Your task to perform on an android device: Open Google Chrome Image 0: 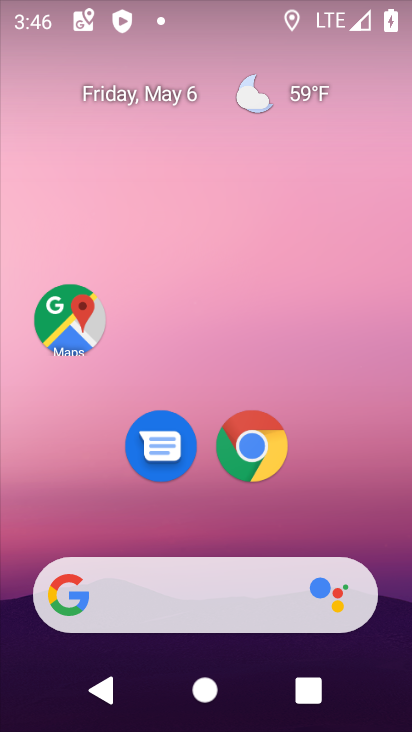
Step 0: click (254, 472)
Your task to perform on an android device: Open Google Chrome Image 1: 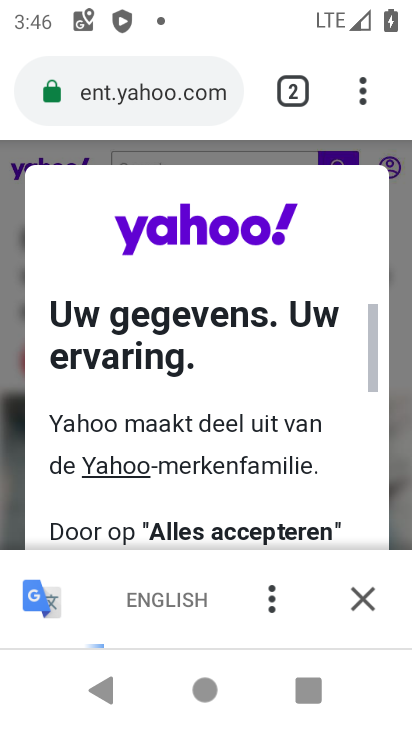
Step 1: task complete